Your task to perform on an android device: Go to Reddit.com Image 0: 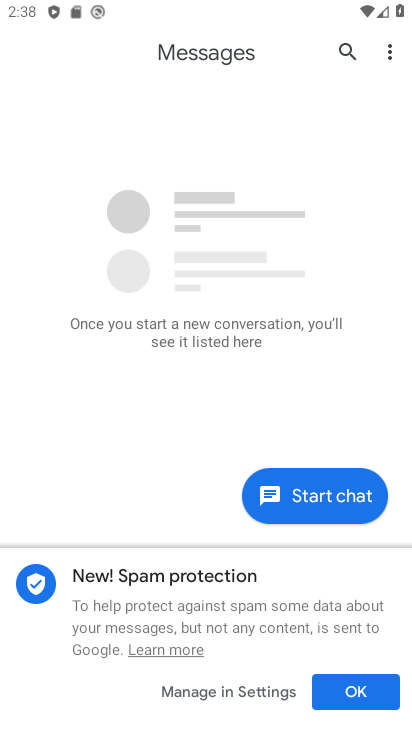
Step 0: press home button
Your task to perform on an android device: Go to Reddit.com Image 1: 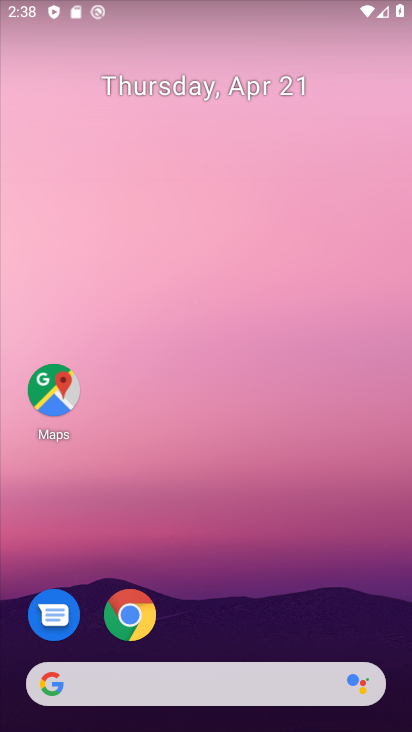
Step 1: drag from (221, 42) to (201, 271)
Your task to perform on an android device: Go to Reddit.com Image 2: 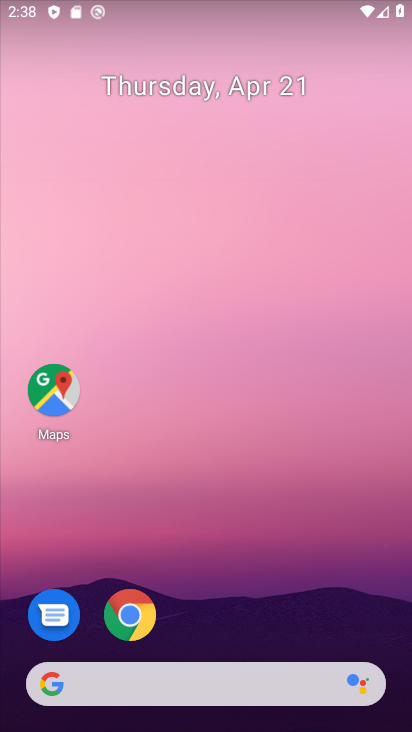
Step 2: drag from (227, 82) to (220, 235)
Your task to perform on an android device: Go to Reddit.com Image 3: 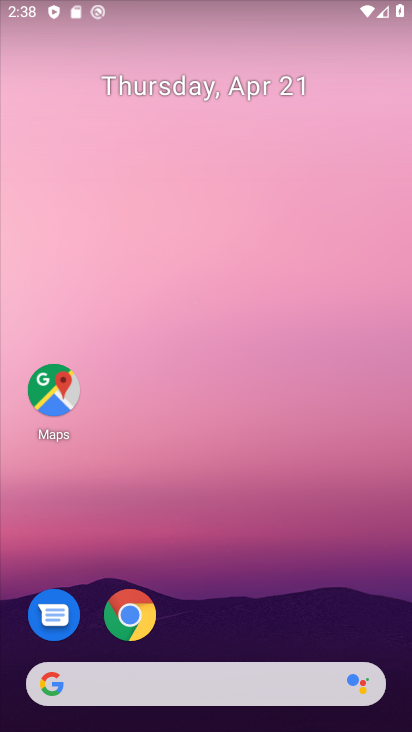
Step 3: drag from (117, 41) to (102, 255)
Your task to perform on an android device: Go to Reddit.com Image 4: 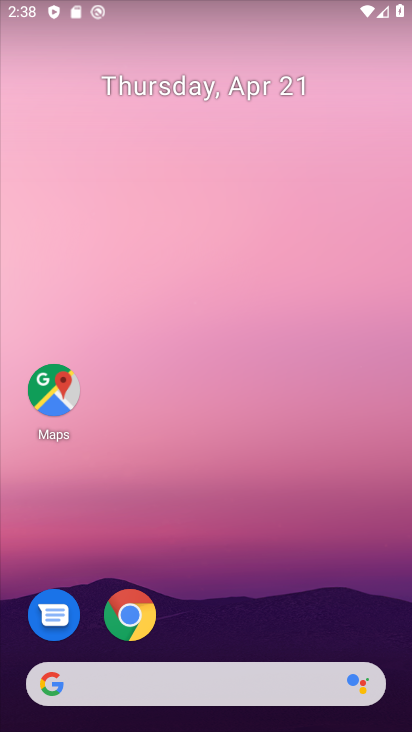
Step 4: drag from (170, 684) to (294, 104)
Your task to perform on an android device: Go to Reddit.com Image 5: 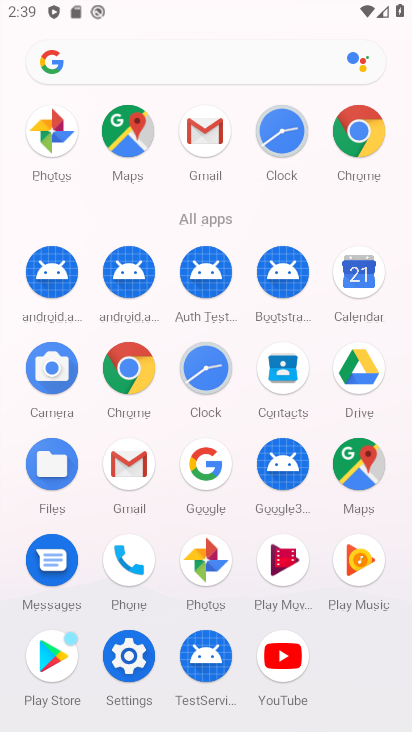
Step 5: click (362, 145)
Your task to perform on an android device: Go to Reddit.com Image 6: 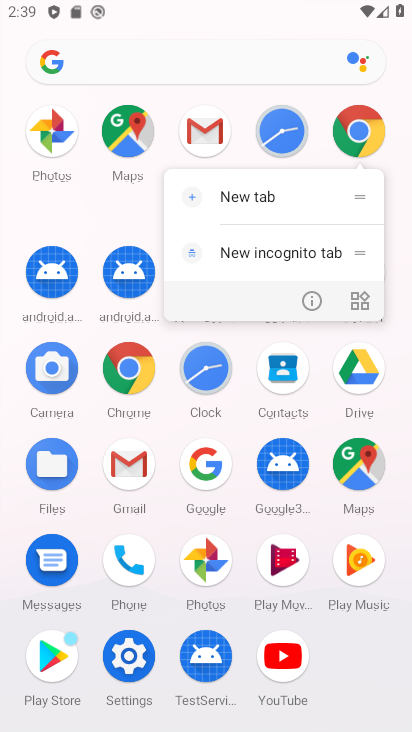
Step 6: click (273, 198)
Your task to perform on an android device: Go to Reddit.com Image 7: 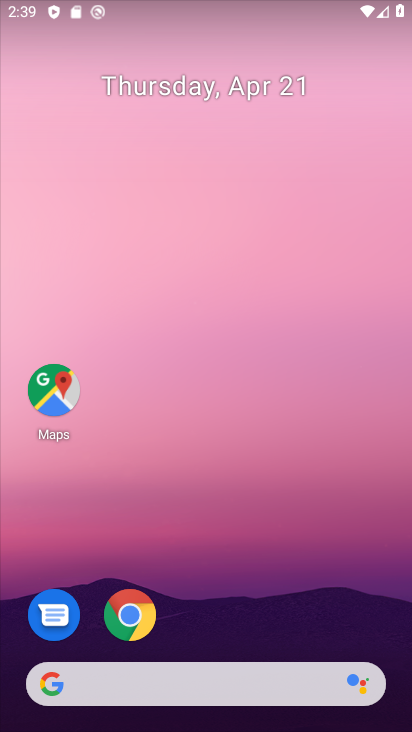
Step 7: drag from (150, 684) to (312, 128)
Your task to perform on an android device: Go to Reddit.com Image 8: 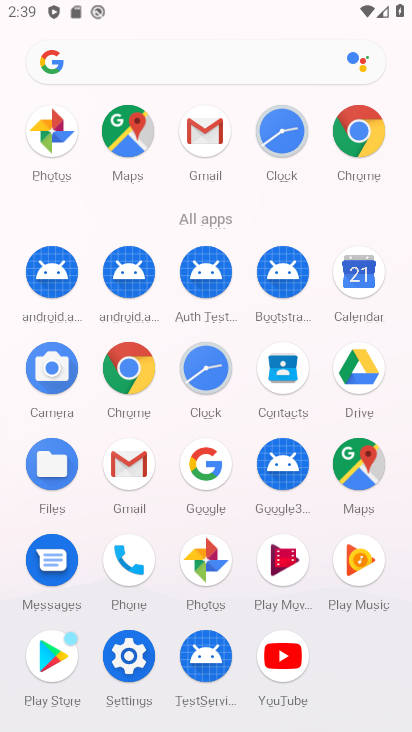
Step 8: click (360, 134)
Your task to perform on an android device: Go to Reddit.com Image 9: 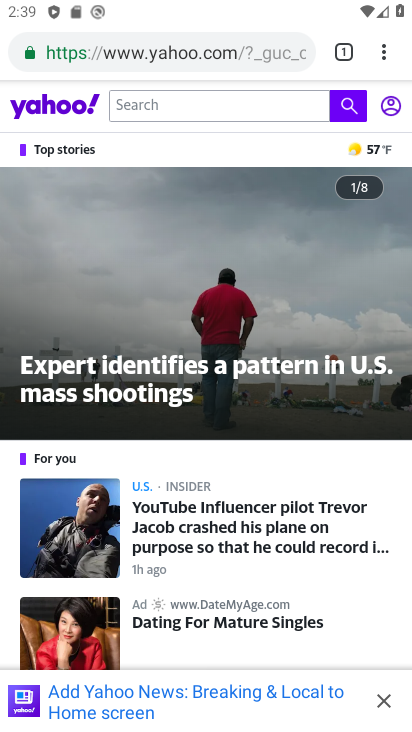
Step 9: click (377, 71)
Your task to perform on an android device: Go to Reddit.com Image 10: 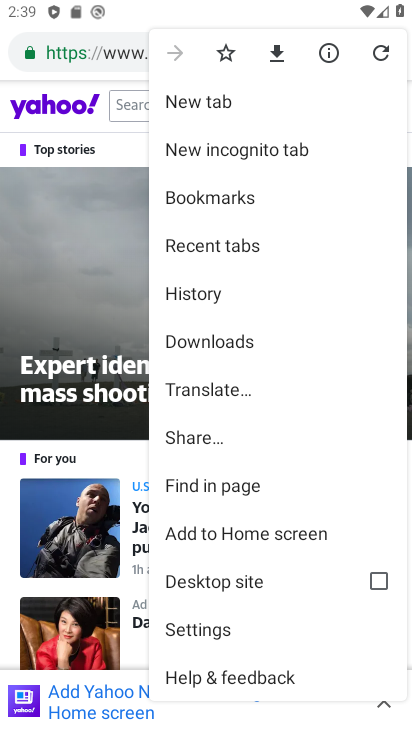
Step 10: click (225, 101)
Your task to perform on an android device: Go to Reddit.com Image 11: 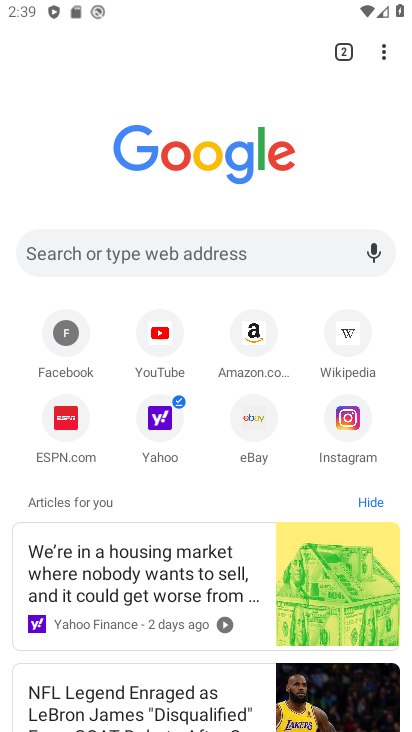
Step 11: click (144, 264)
Your task to perform on an android device: Go to Reddit.com Image 12: 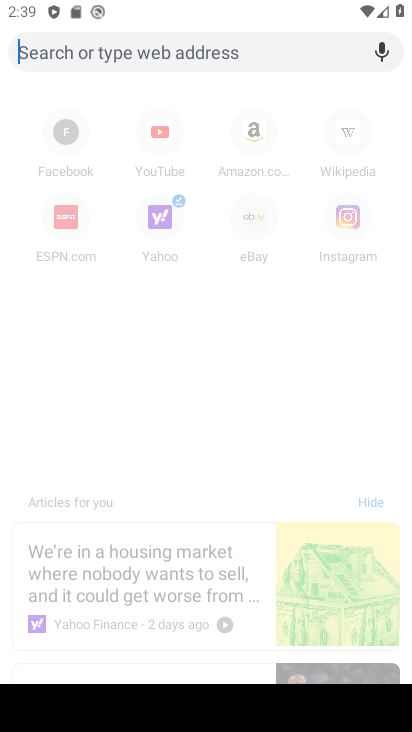
Step 12: type "reddit.com"
Your task to perform on an android device: Go to Reddit.com Image 13: 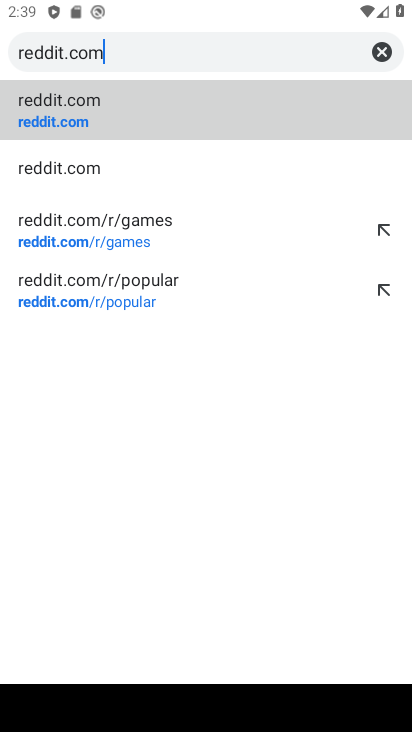
Step 13: click (62, 112)
Your task to perform on an android device: Go to Reddit.com Image 14: 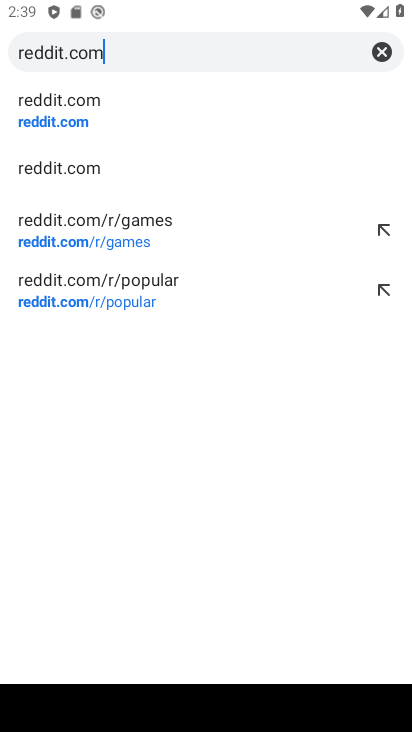
Step 14: click (92, 110)
Your task to perform on an android device: Go to Reddit.com Image 15: 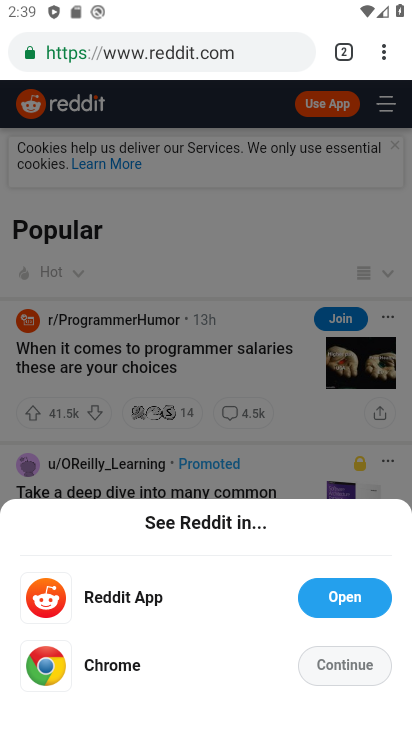
Step 15: click (338, 607)
Your task to perform on an android device: Go to Reddit.com Image 16: 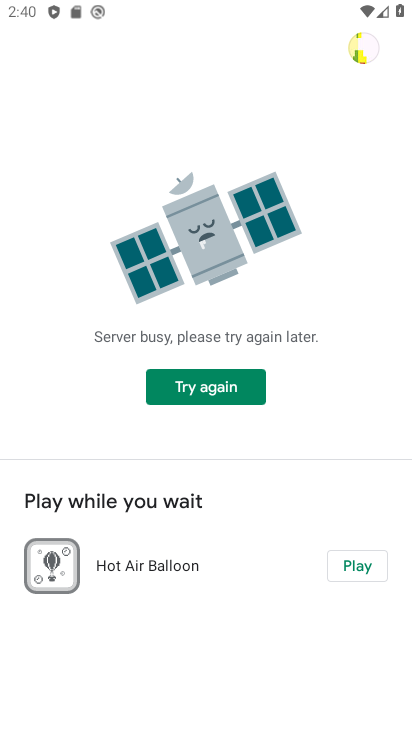
Step 16: task complete